Your task to perform on an android device: Go to network settings Image 0: 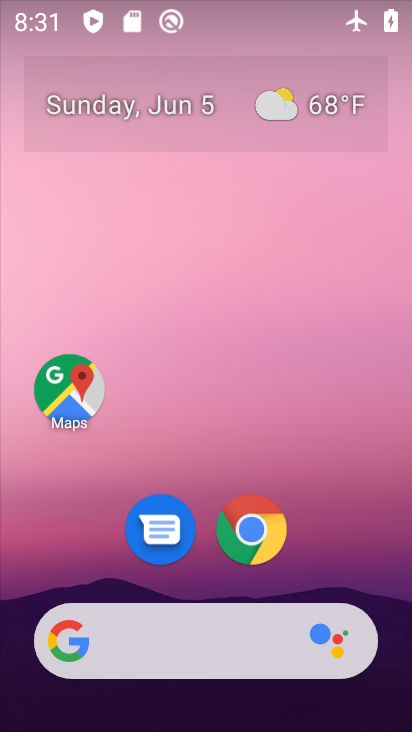
Step 0: drag from (154, 719) to (274, 32)
Your task to perform on an android device: Go to network settings Image 1: 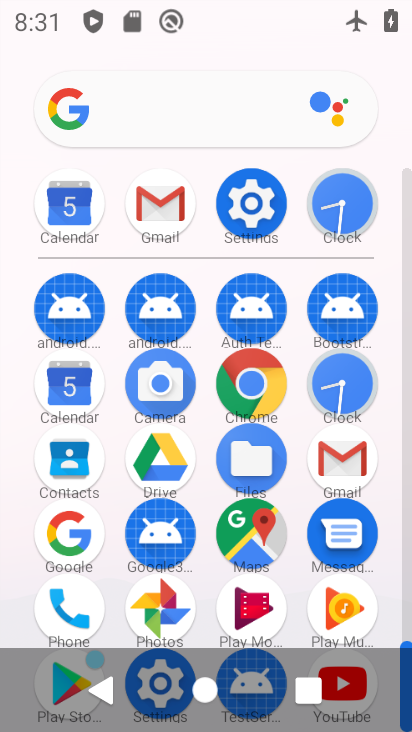
Step 1: click (249, 223)
Your task to perform on an android device: Go to network settings Image 2: 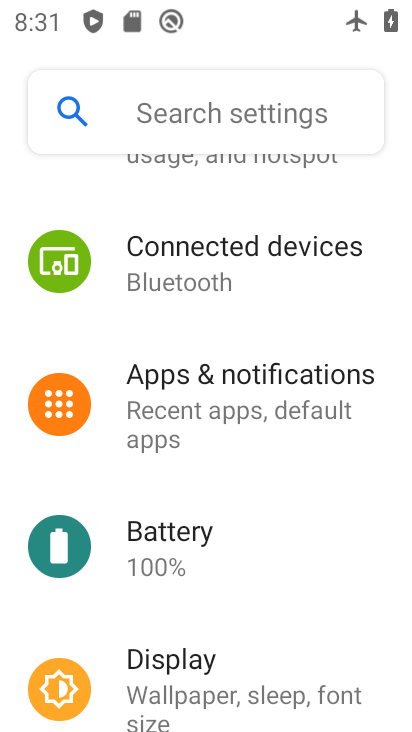
Step 2: drag from (274, 277) to (316, 696)
Your task to perform on an android device: Go to network settings Image 3: 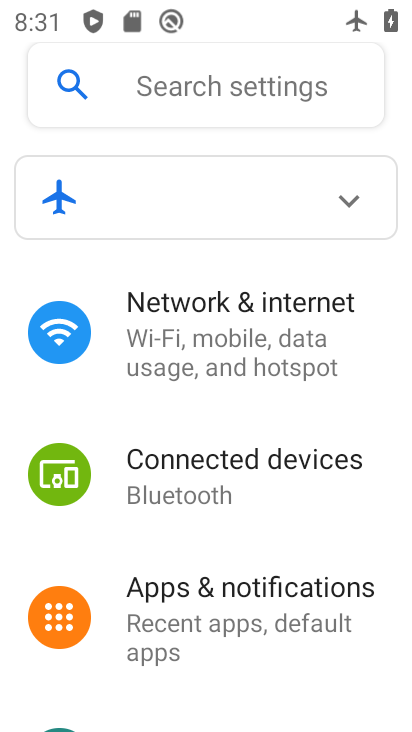
Step 3: click (287, 365)
Your task to perform on an android device: Go to network settings Image 4: 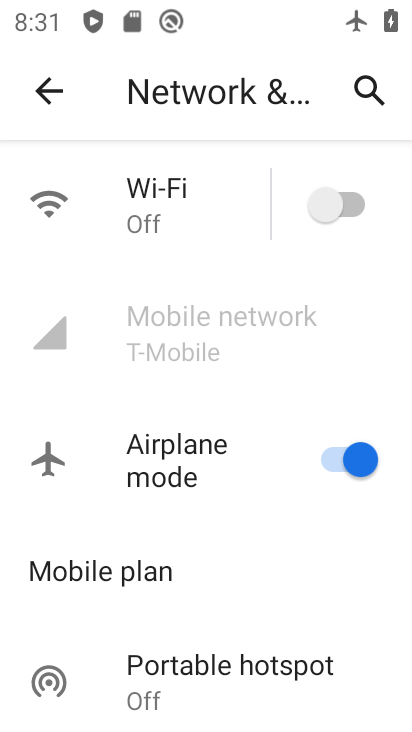
Step 4: task complete